Your task to perform on an android device: Open wifi settings Image 0: 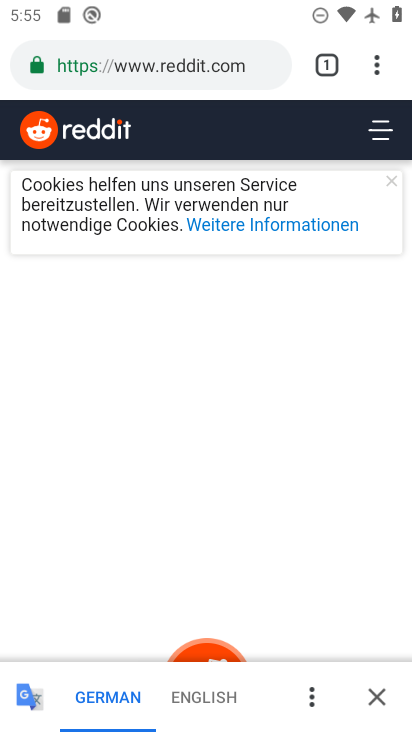
Step 0: press home button
Your task to perform on an android device: Open wifi settings Image 1: 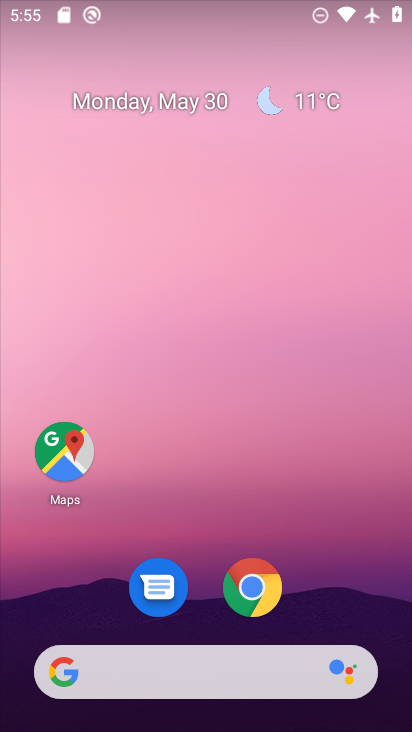
Step 1: drag from (319, 565) to (221, 4)
Your task to perform on an android device: Open wifi settings Image 2: 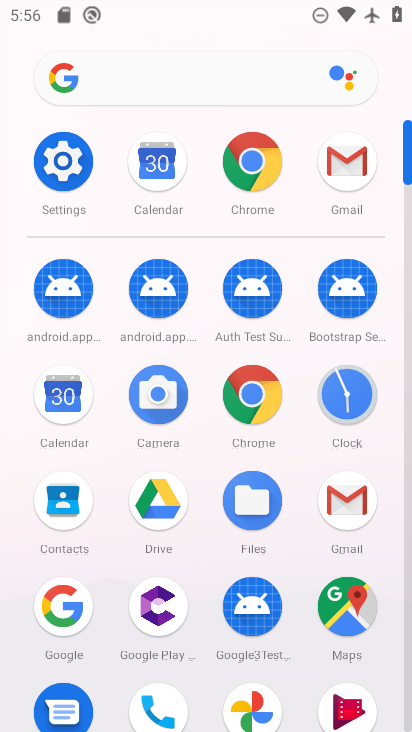
Step 2: click (65, 157)
Your task to perform on an android device: Open wifi settings Image 3: 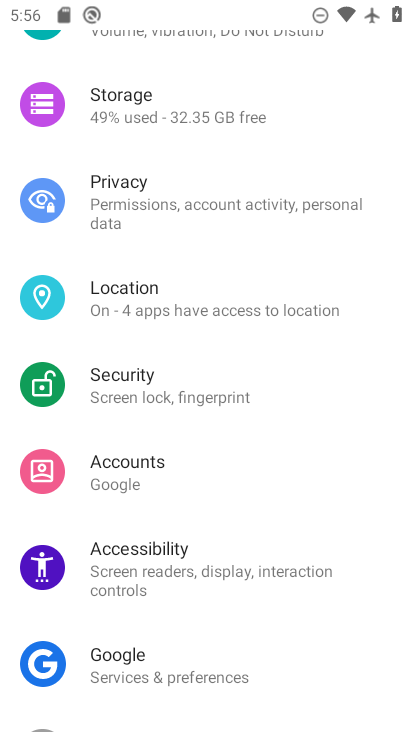
Step 3: drag from (259, 151) to (285, 623)
Your task to perform on an android device: Open wifi settings Image 4: 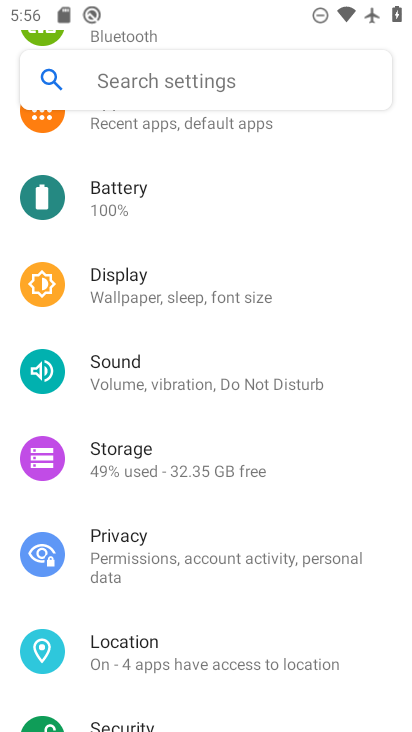
Step 4: drag from (268, 140) to (291, 658)
Your task to perform on an android device: Open wifi settings Image 5: 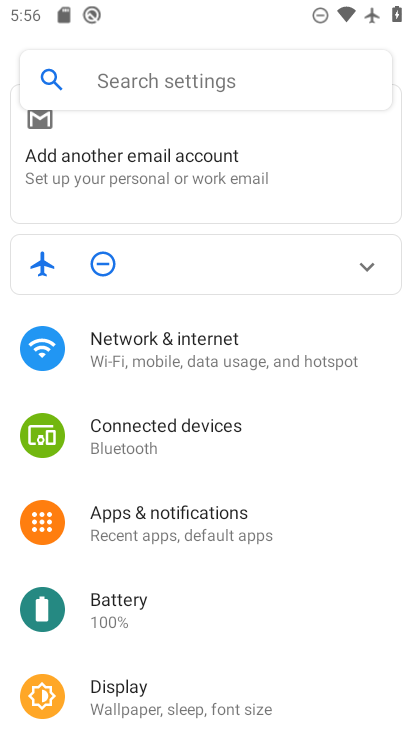
Step 5: click (129, 348)
Your task to perform on an android device: Open wifi settings Image 6: 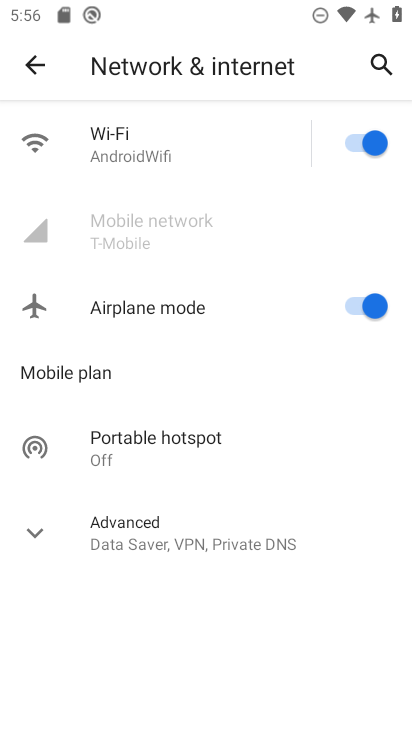
Step 6: click (126, 138)
Your task to perform on an android device: Open wifi settings Image 7: 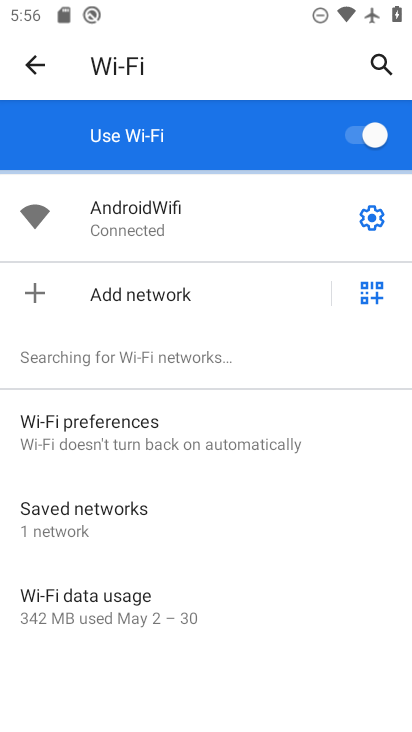
Step 7: task complete